Your task to perform on an android device: turn off picture-in-picture Image 0: 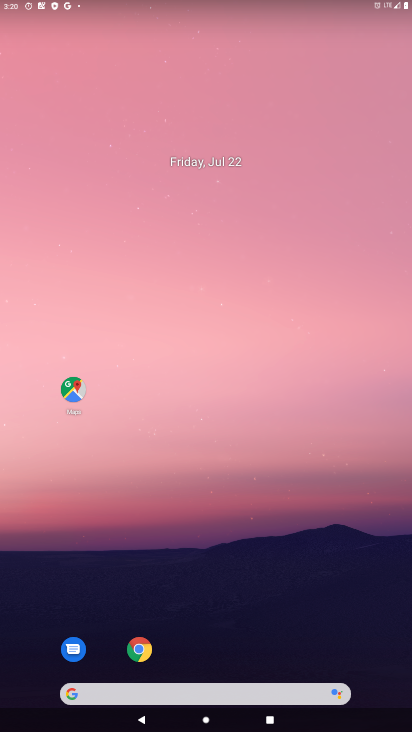
Step 0: drag from (280, 580) to (290, 135)
Your task to perform on an android device: turn off picture-in-picture Image 1: 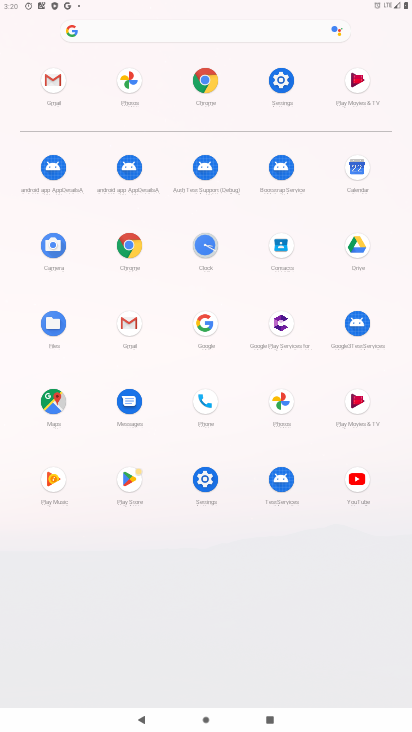
Step 1: click (207, 78)
Your task to perform on an android device: turn off picture-in-picture Image 2: 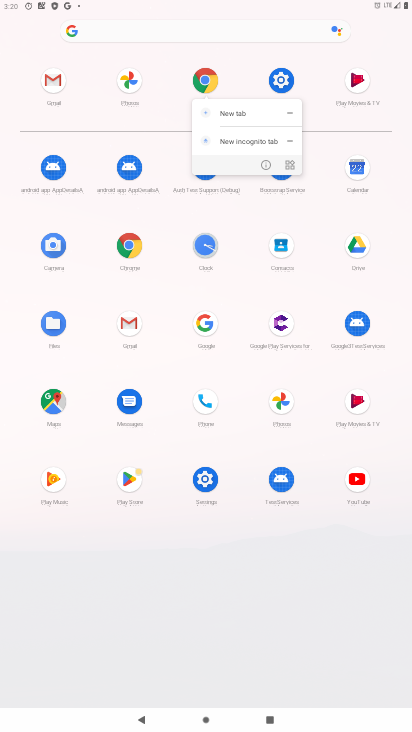
Step 2: click (269, 161)
Your task to perform on an android device: turn off picture-in-picture Image 3: 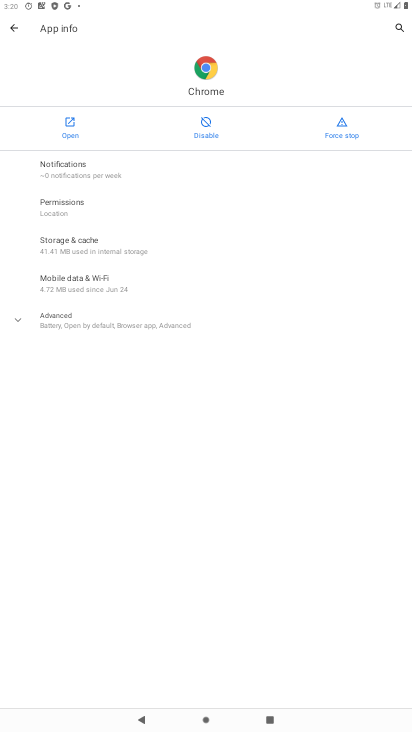
Step 3: click (87, 319)
Your task to perform on an android device: turn off picture-in-picture Image 4: 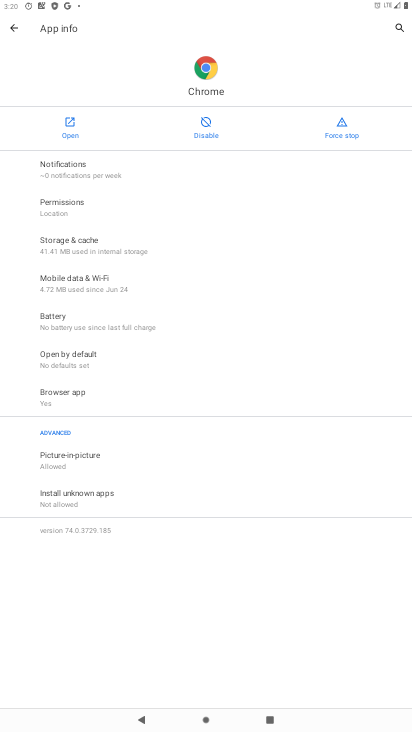
Step 4: click (96, 452)
Your task to perform on an android device: turn off picture-in-picture Image 5: 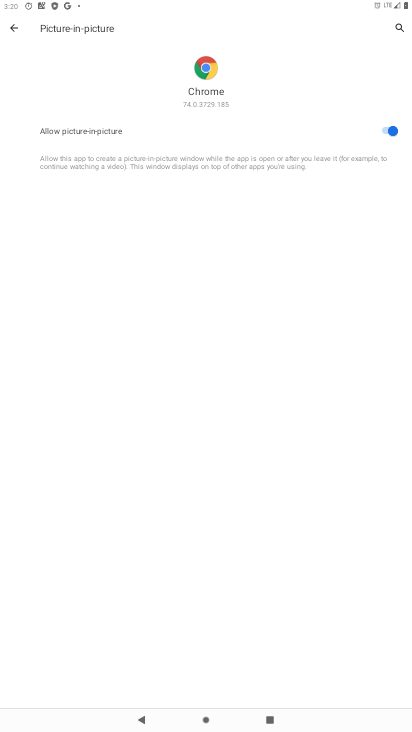
Step 5: click (383, 139)
Your task to perform on an android device: turn off picture-in-picture Image 6: 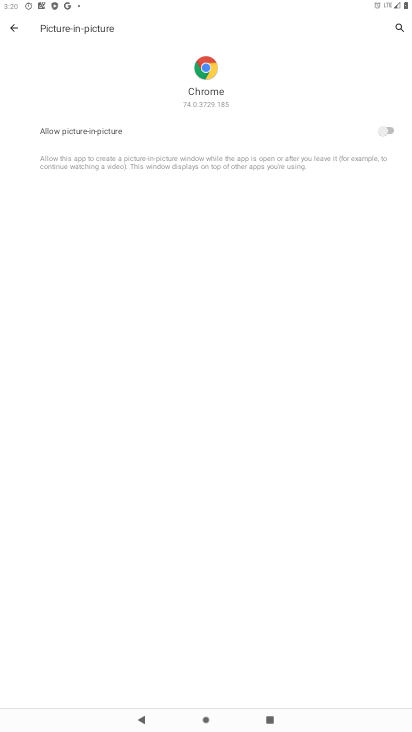
Step 6: task complete